Your task to perform on an android device: Show me popular games on the Play Store Image 0: 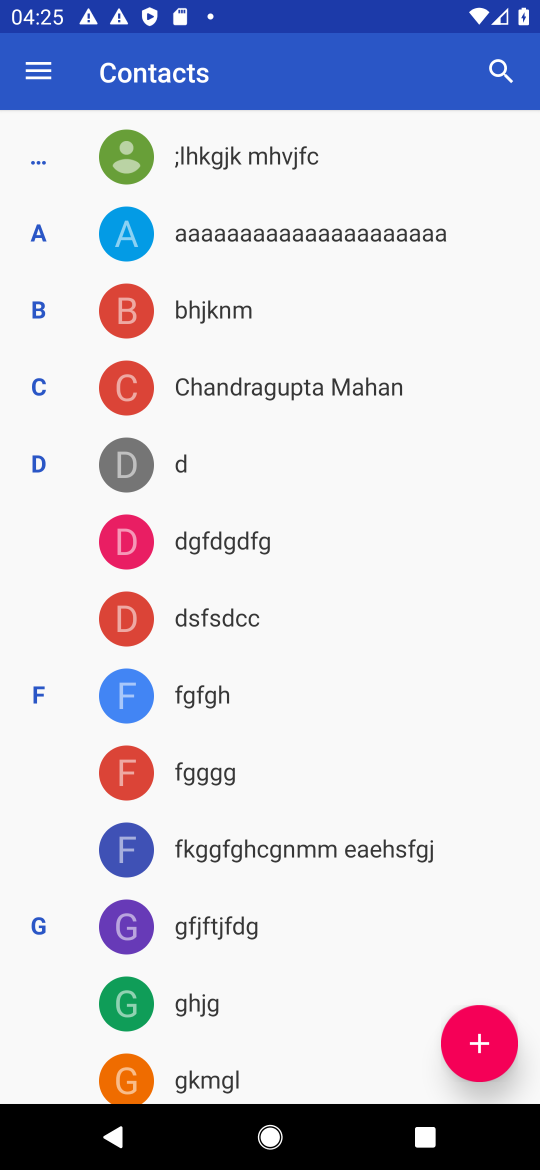
Step 0: press home button
Your task to perform on an android device: Show me popular games on the Play Store Image 1: 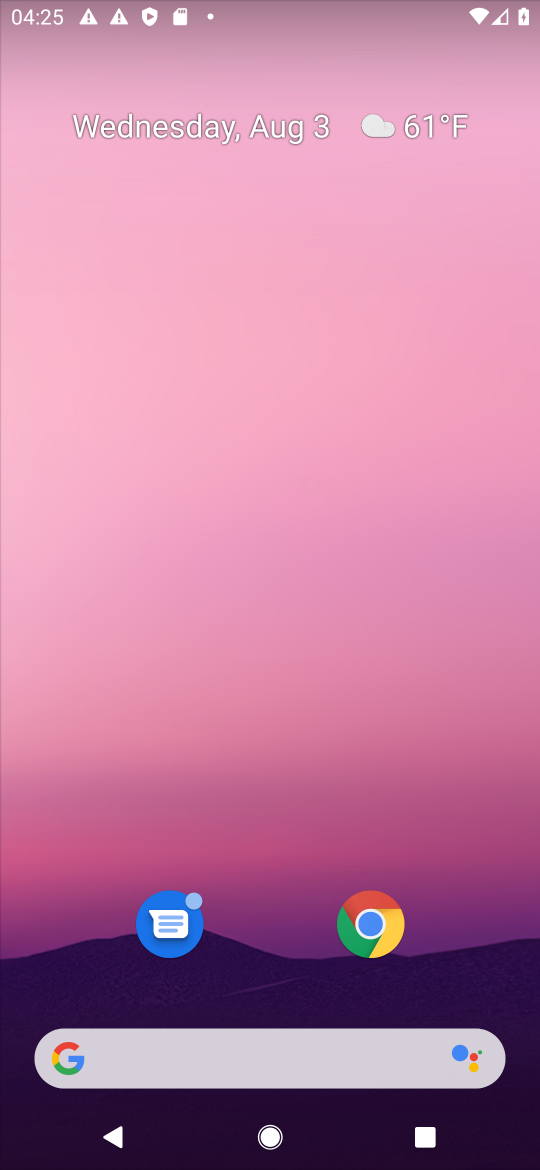
Step 1: drag from (254, 958) to (315, 266)
Your task to perform on an android device: Show me popular games on the Play Store Image 2: 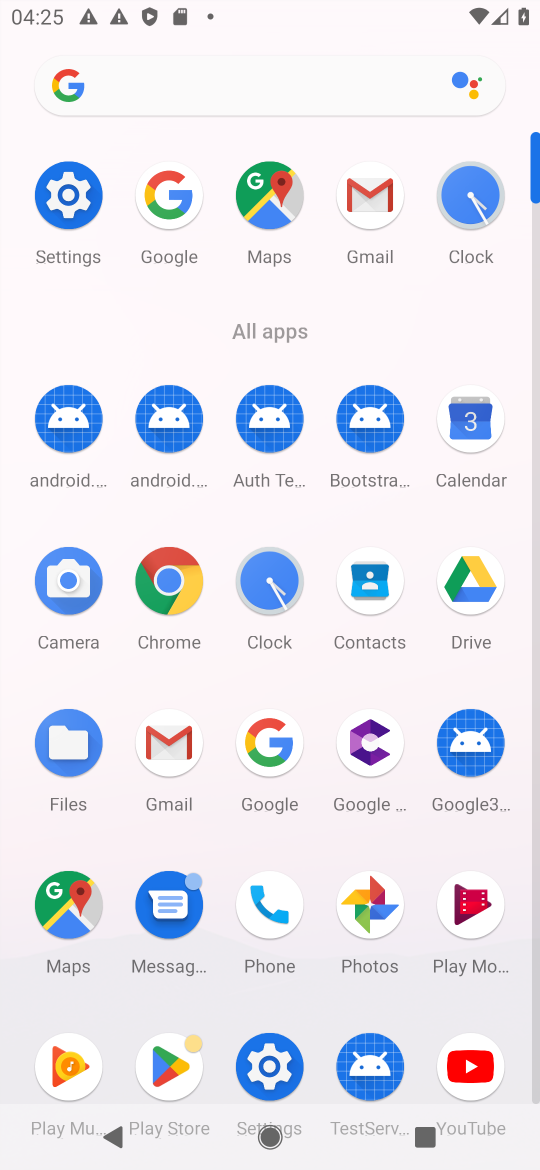
Step 2: click (158, 1065)
Your task to perform on an android device: Show me popular games on the Play Store Image 3: 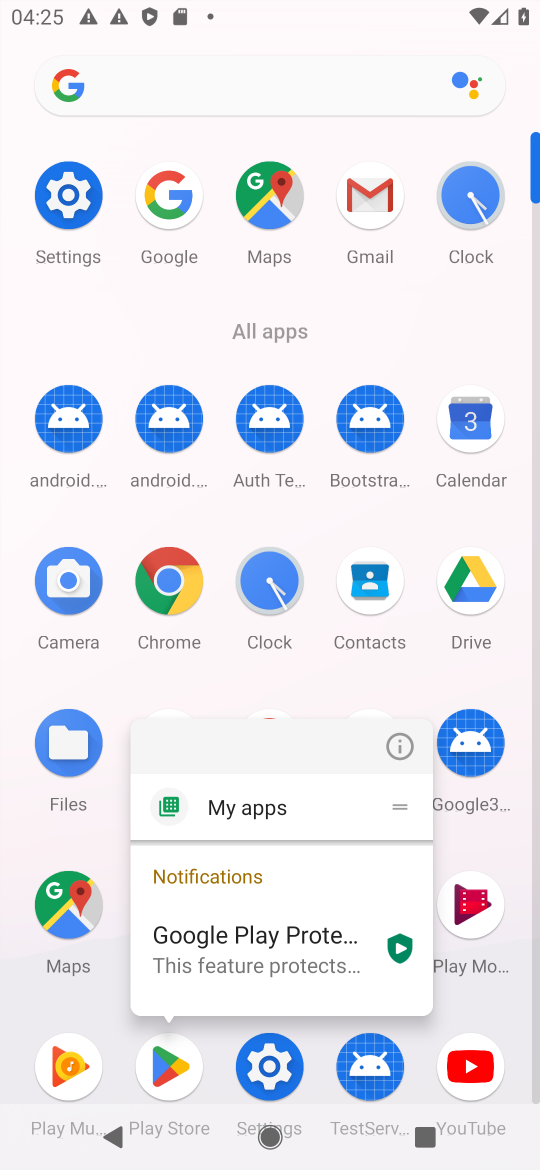
Step 3: click (158, 1065)
Your task to perform on an android device: Show me popular games on the Play Store Image 4: 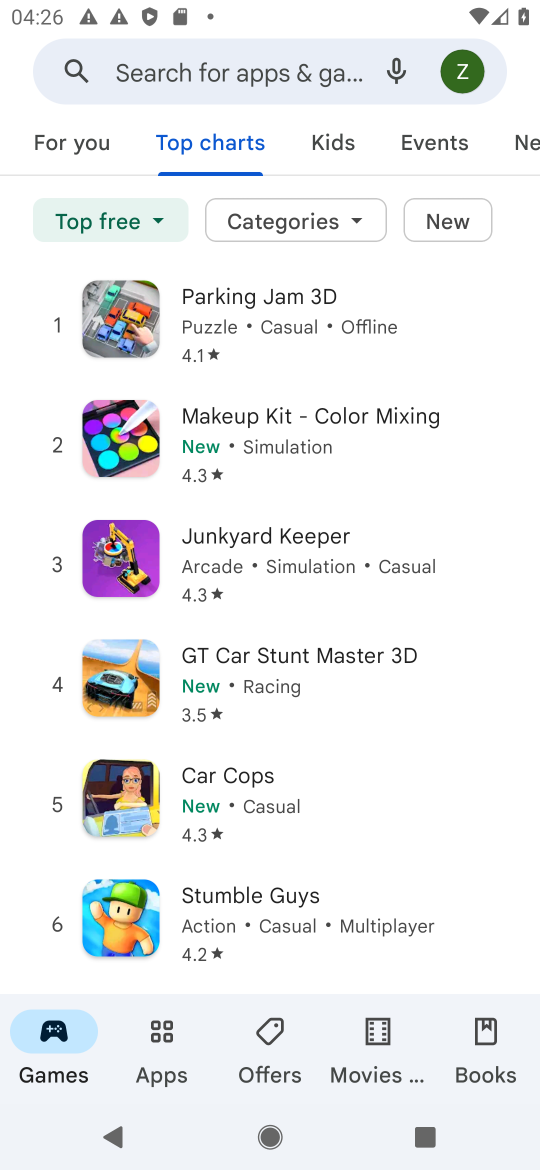
Step 4: task complete